Your task to perform on an android device: search for starred emails in the gmail app Image 0: 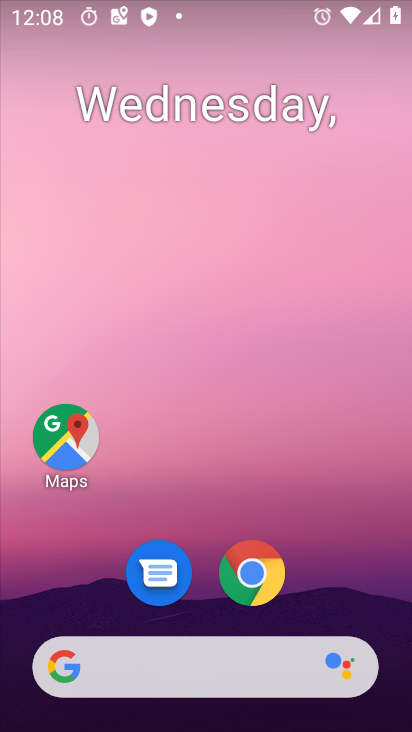
Step 0: drag from (236, 695) to (308, 299)
Your task to perform on an android device: search for starred emails in the gmail app Image 1: 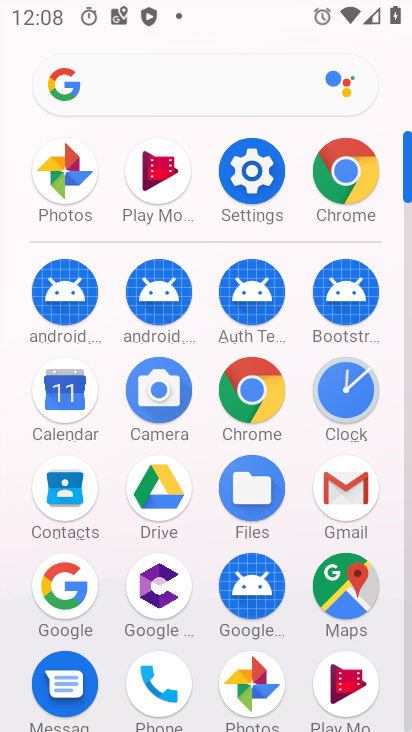
Step 1: click (319, 483)
Your task to perform on an android device: search for starred emails in the gmail app Image 2: 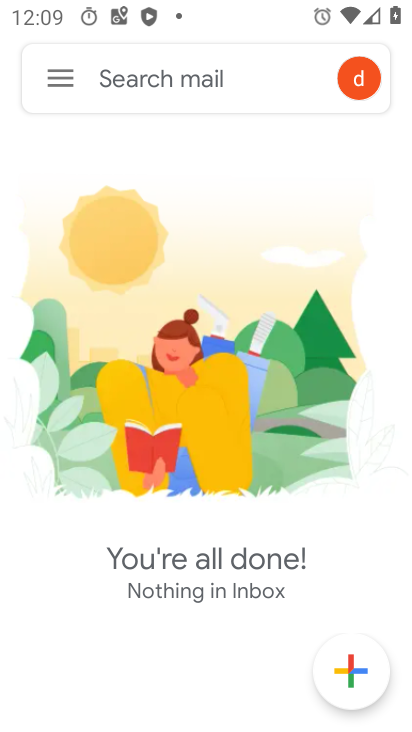
Step 2: click (60, 84)
Your task to perform on an android device: search for starred emails in the gmail app Image 3: 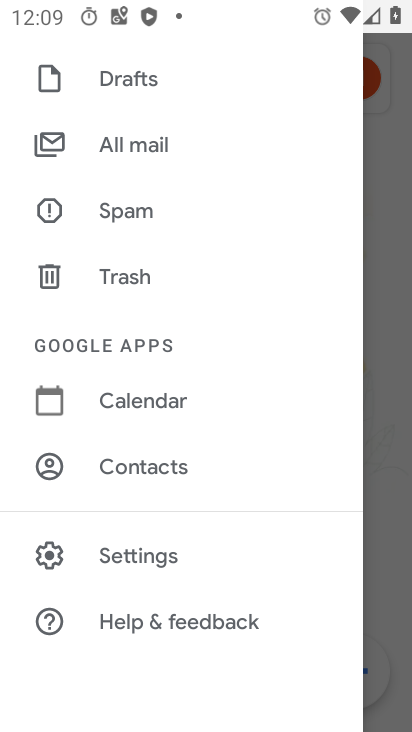
Step 3: drag from (126, 241) to (21, 542)
Your task to perform on an android device: search for starred emails in the gmail app Image 4: 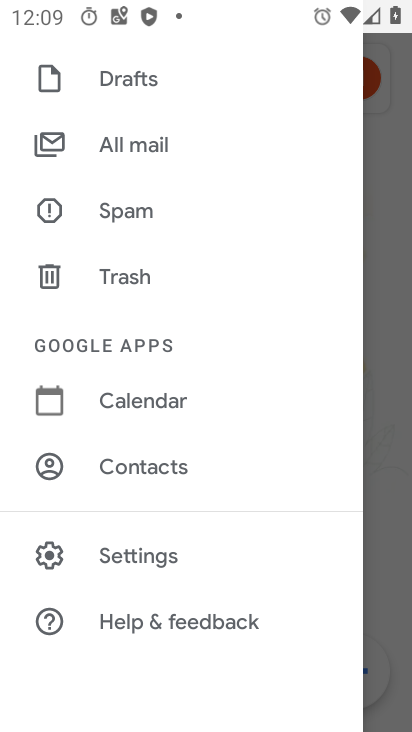
Step 4: drag from (110, 179) to (82, 577)
Your task to perform on an android device: search for starred emails in the gmail app Image 5: 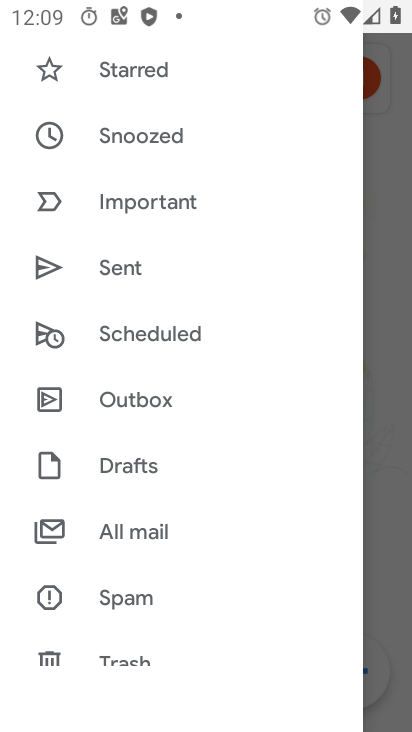
Step 5: click (148, 75)
Your task to perform on an android device: search for starred emails in the gmail app Image 6: 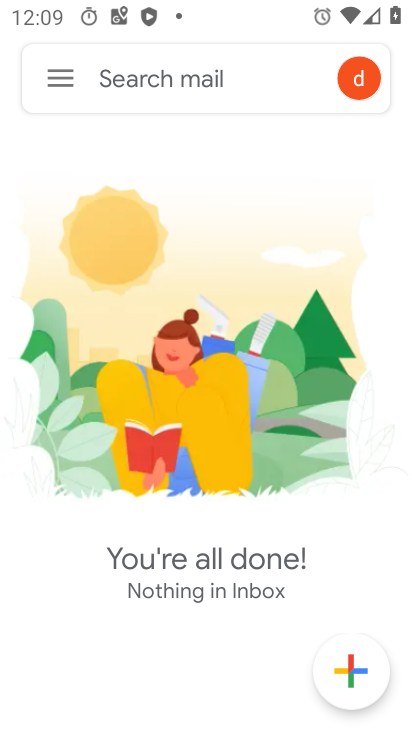
Step 6: task complete